Your task to perform on an android device: stop showing notifications on the lock screen Image 0: 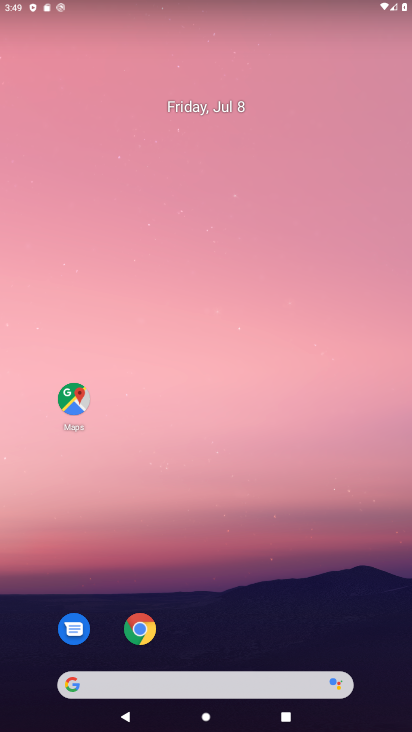
Step 0: drag from (34, 11) to (188, 60)
Your task to perform on an android device: stop showing notifications on the lock screen Image 1: 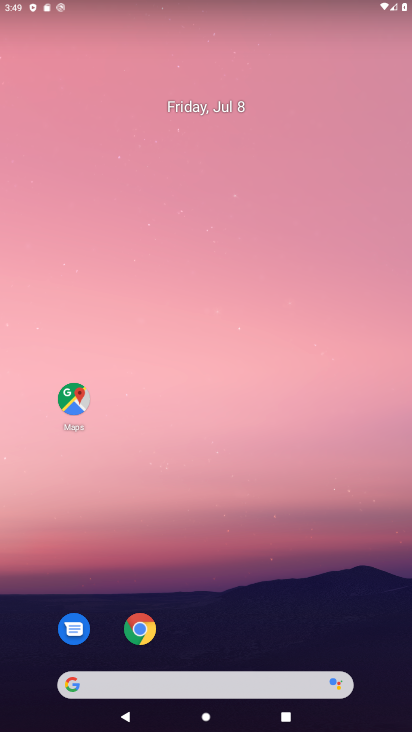
Step 1: drag from (215, 660) to (151, 32)
Your task to perform on an android device: stop showing notifications on the lock screen Image 2: 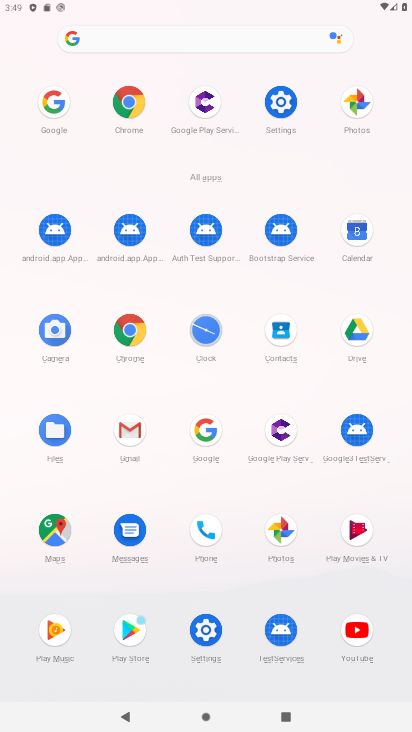
Step 2: click (283, 105)
Your task to perform on an android device: stop showing notifications on the lock screen Image 3: 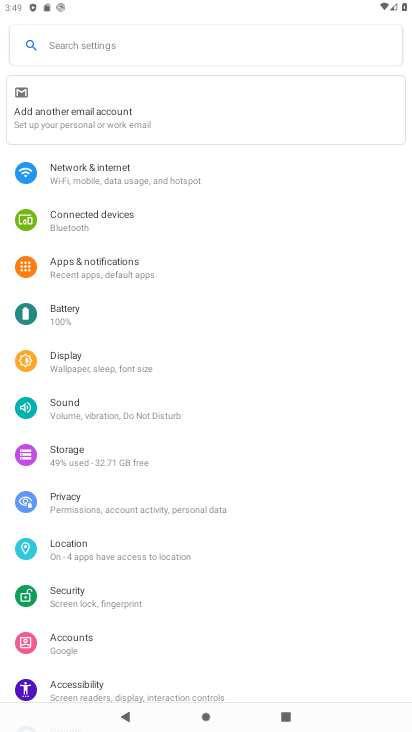
Step 3: click (56, 277)
Your task to perform on an android device: stop showing notifications on the lock screen Image 4: 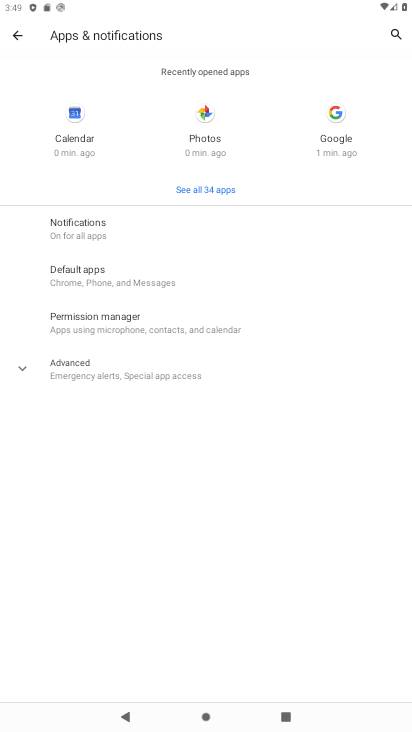
Step 4: click (121, 235)
Your task to perform on an android device: stop showing notifications on the lock screen Image 5: 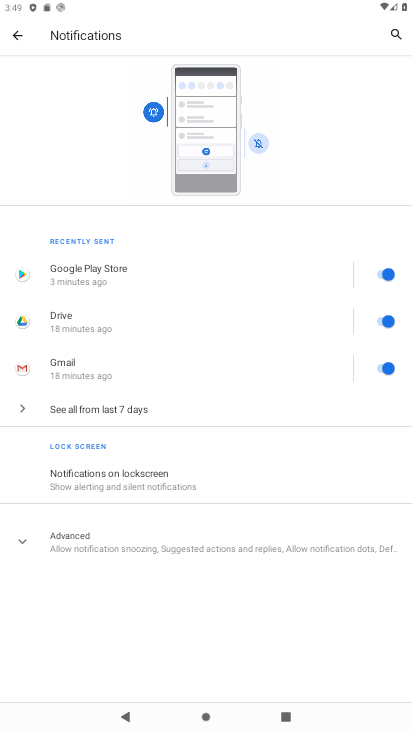
Step 5: click (131, 465)
Your task to perform on an android device: stop showing notifications on the lock screen Image 6: 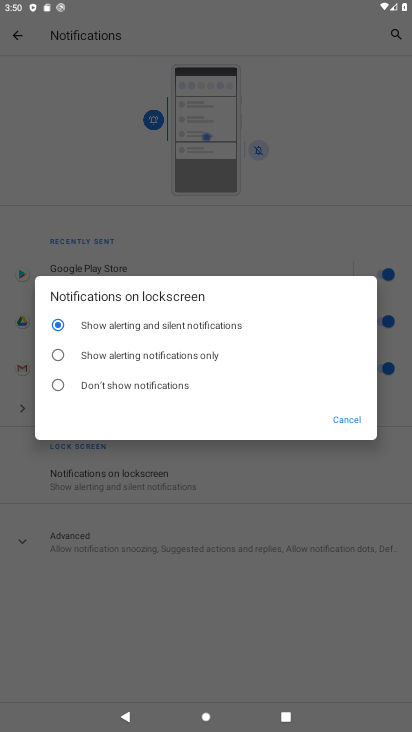
Step 6: click (106, 387)
Your task to perform on an android device: stop showing notifications on the lock screen Image 7: 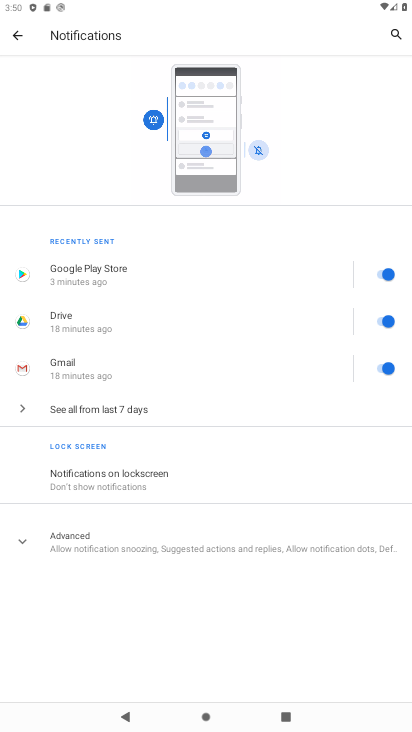
Step 7: task complete